Your task to perform on an android device: set default search engine in the chrome app Image 0: 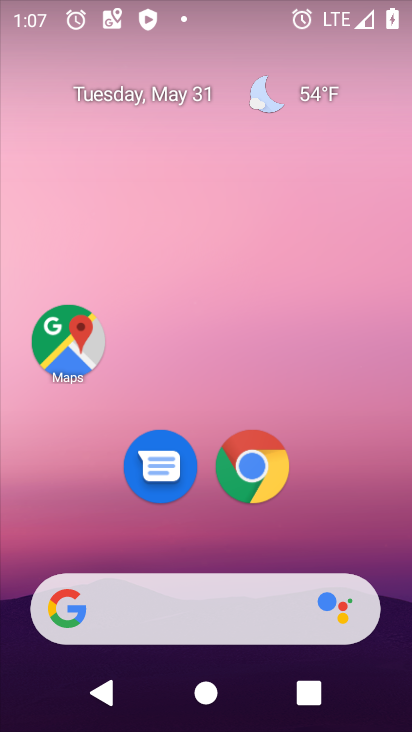
Step 0: click (242, 467)
Your task to perform on an android device: set default search engine in the chrome app Image 1: 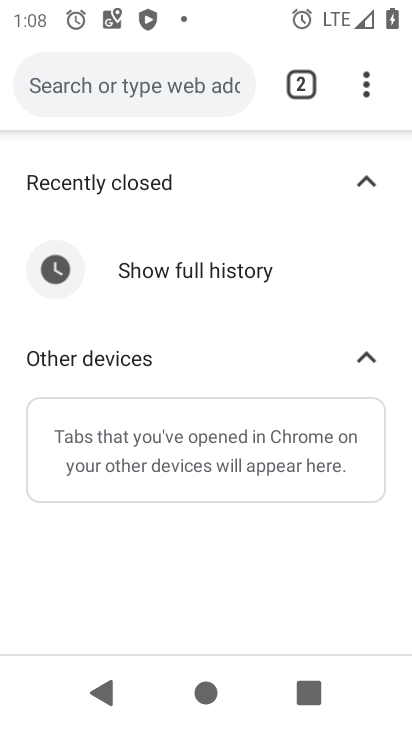
Step 1: press home button
Your task to perform on an android device: set default search engine in the chrome app Image 2: 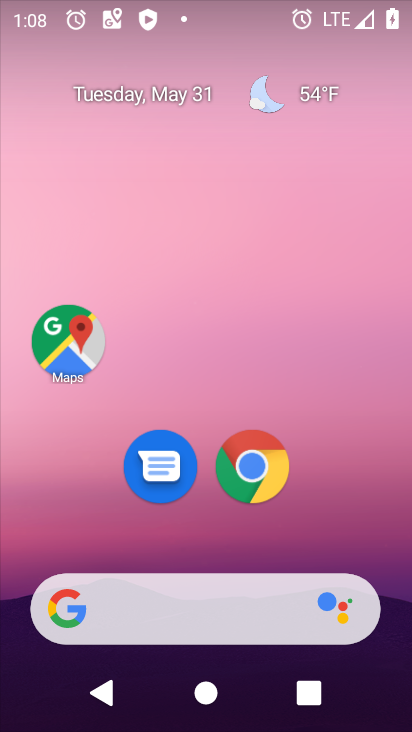
Step 2: click (255, 462)
Your task to perform on an android device: set default search engine in the chrome app Image 3: 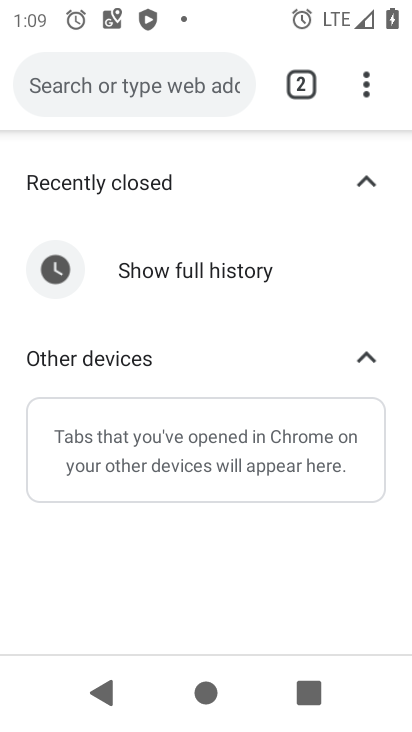
Step 3: drag from (370, 81) to (73, 516)
Your task to perform on an android device: set default search engine in the chrome app Image 4: 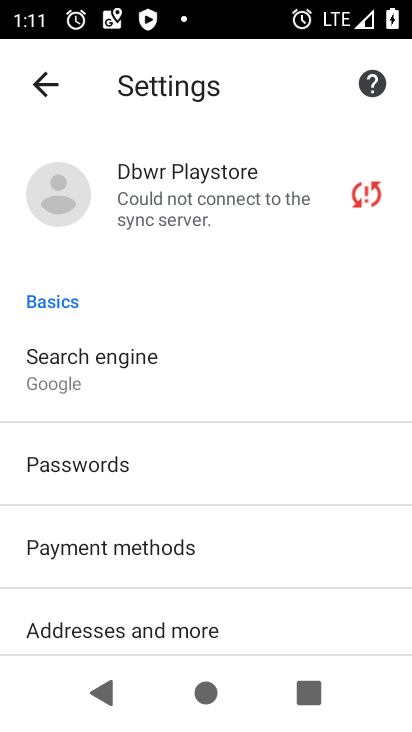
Step 4: click (103, 386)
Your task to perform on an android device: set default search engine in the chrome app Image 5: 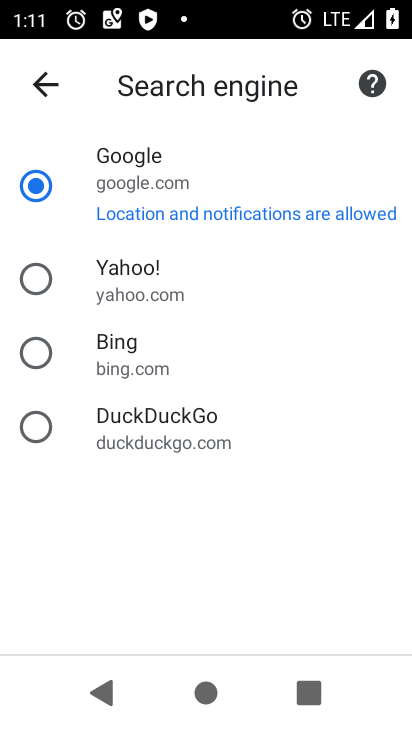
Step 5: click (133, 273)
Your task to perform on an android device: set default search engine in the chrome app Image 6: 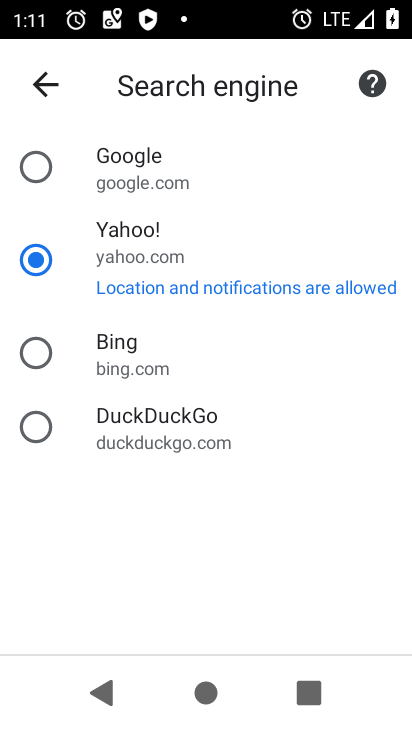
Step 6: task complete